Your task to perform on an android device: Search for the best rated book on Goodreads. Image 0: 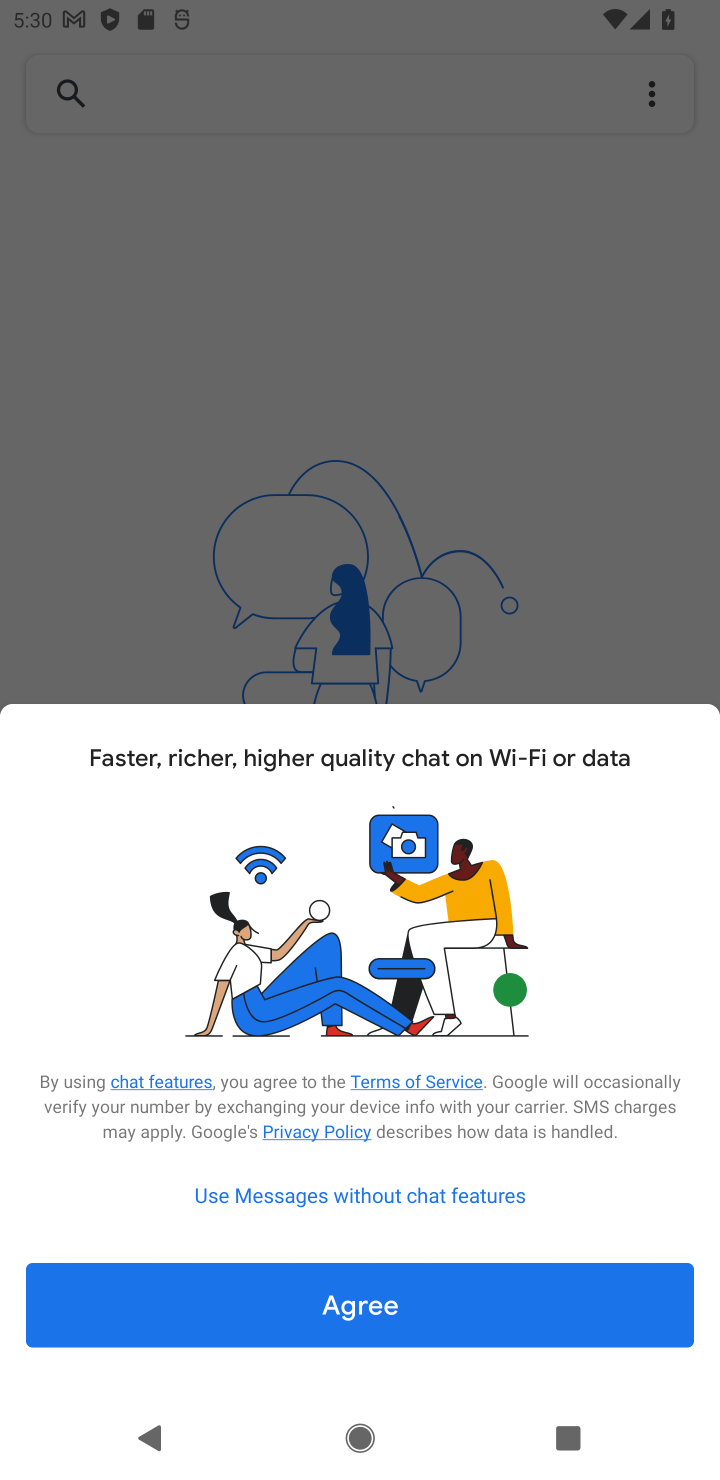
Step 0: press home button
Your task to perform on an android device: Search for the best rated book on Goodreads. Image 1: 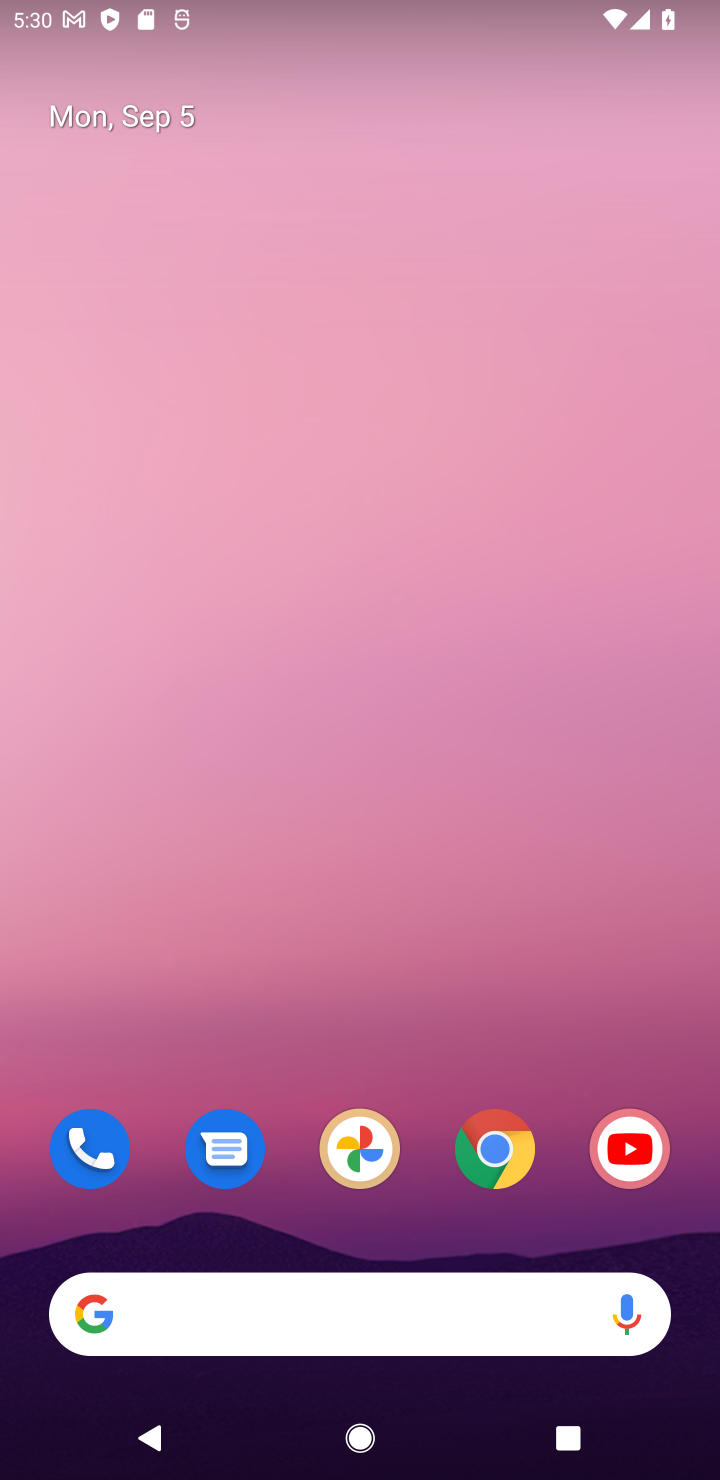
Step 1: click (496, 1150)
Your task to perform on an android device: Search for the best rated book on Goodreads. Image 2: 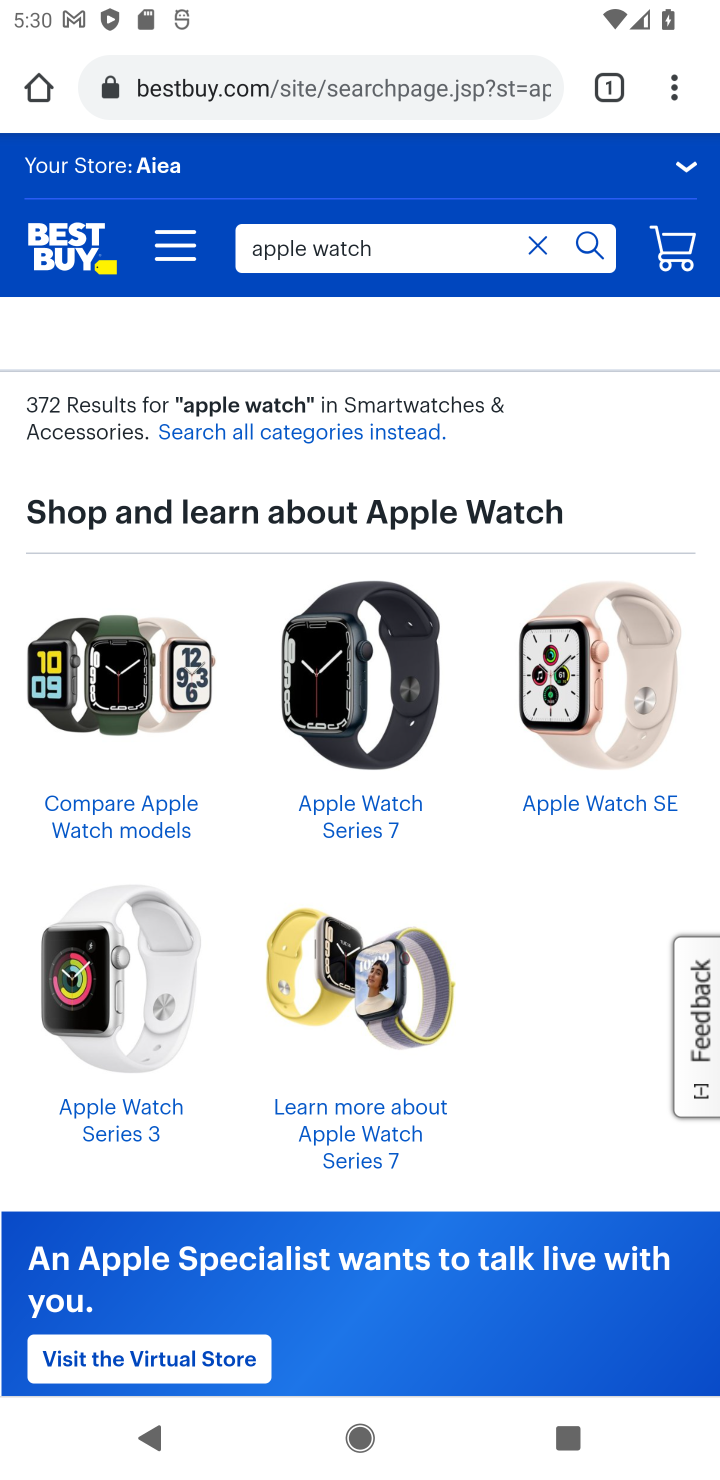
Step 2: click (262, 59)
Your task to perform on an android device: Search for the best rated book on Goodreads. Image 3: 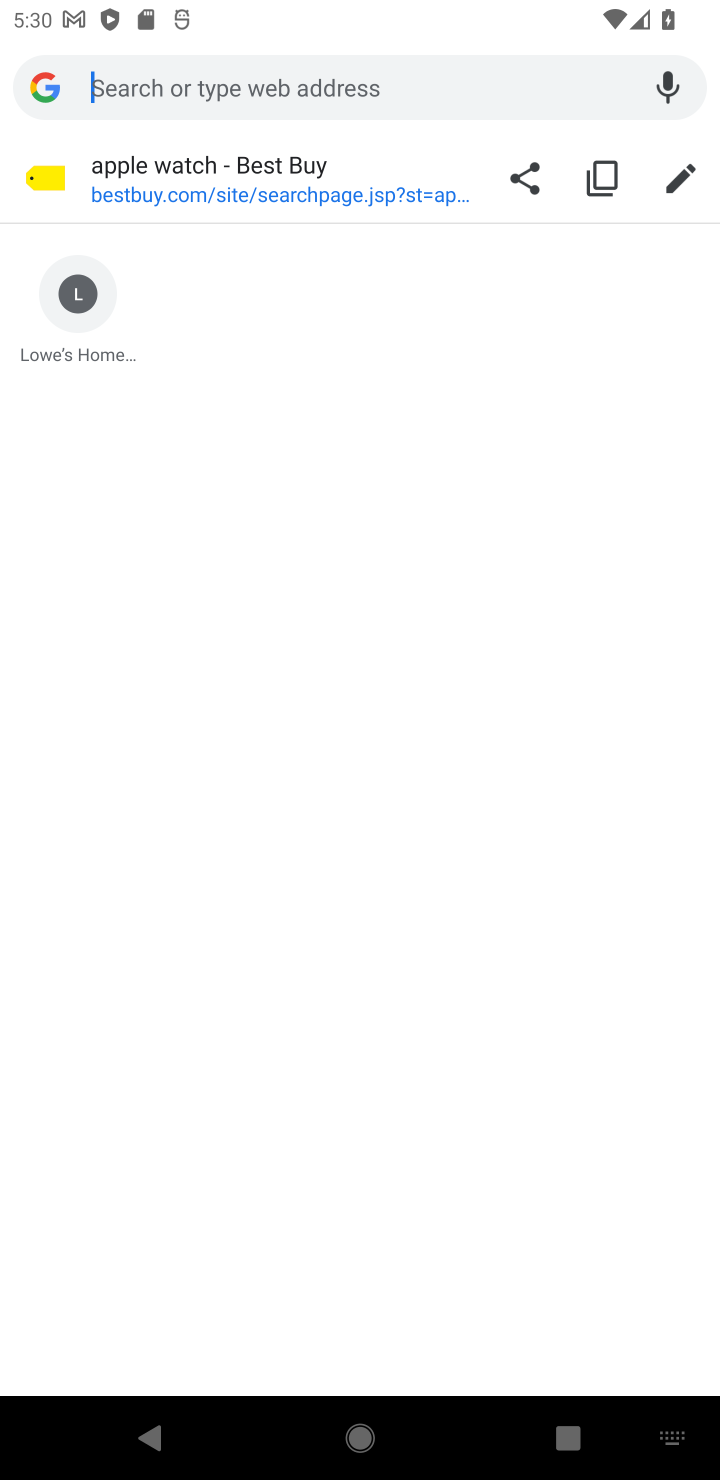
Step 3: type "Goodreads"
Your task to perform on an android device: Search for the best rated book on Goodreads. Image 4: 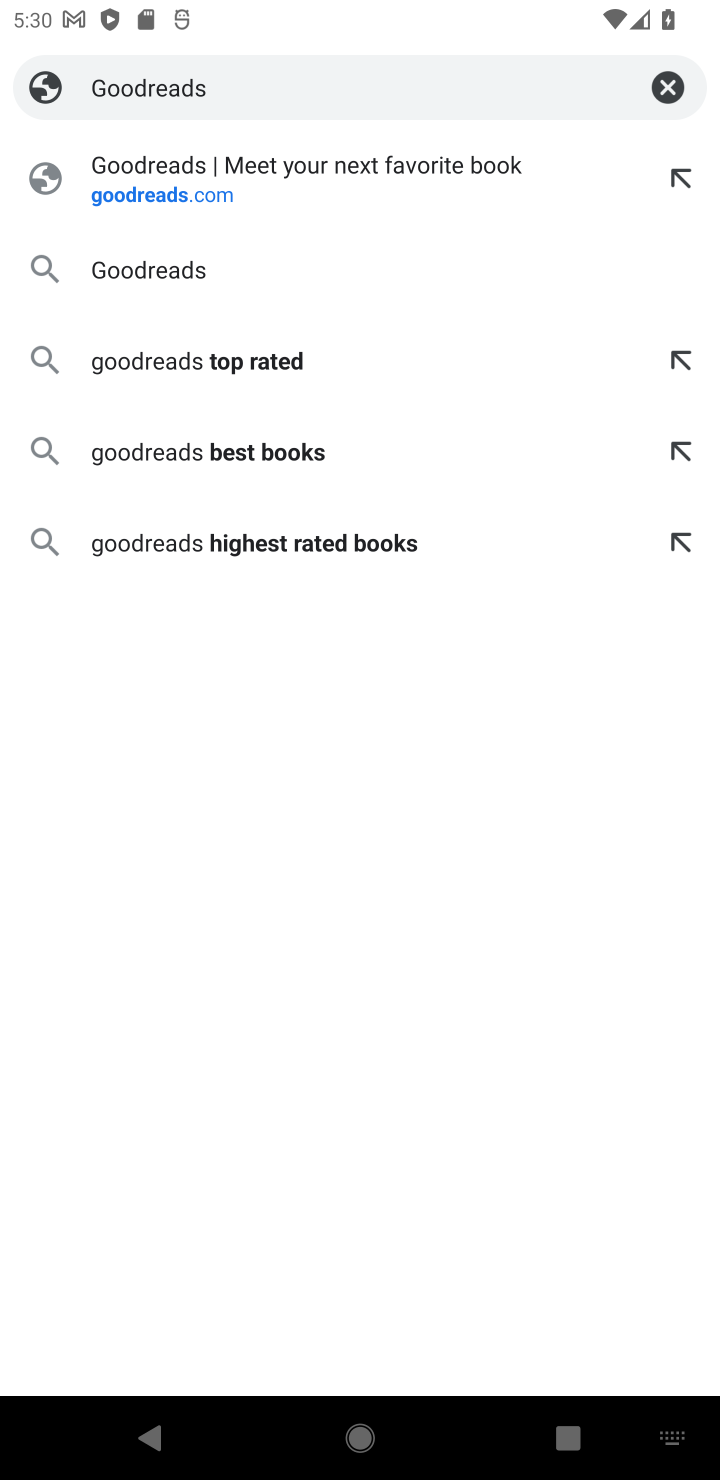
Step 4: click (201, 174)
Your task to perform on an android device: Search for the best rated book on Goodreads. Image 5: 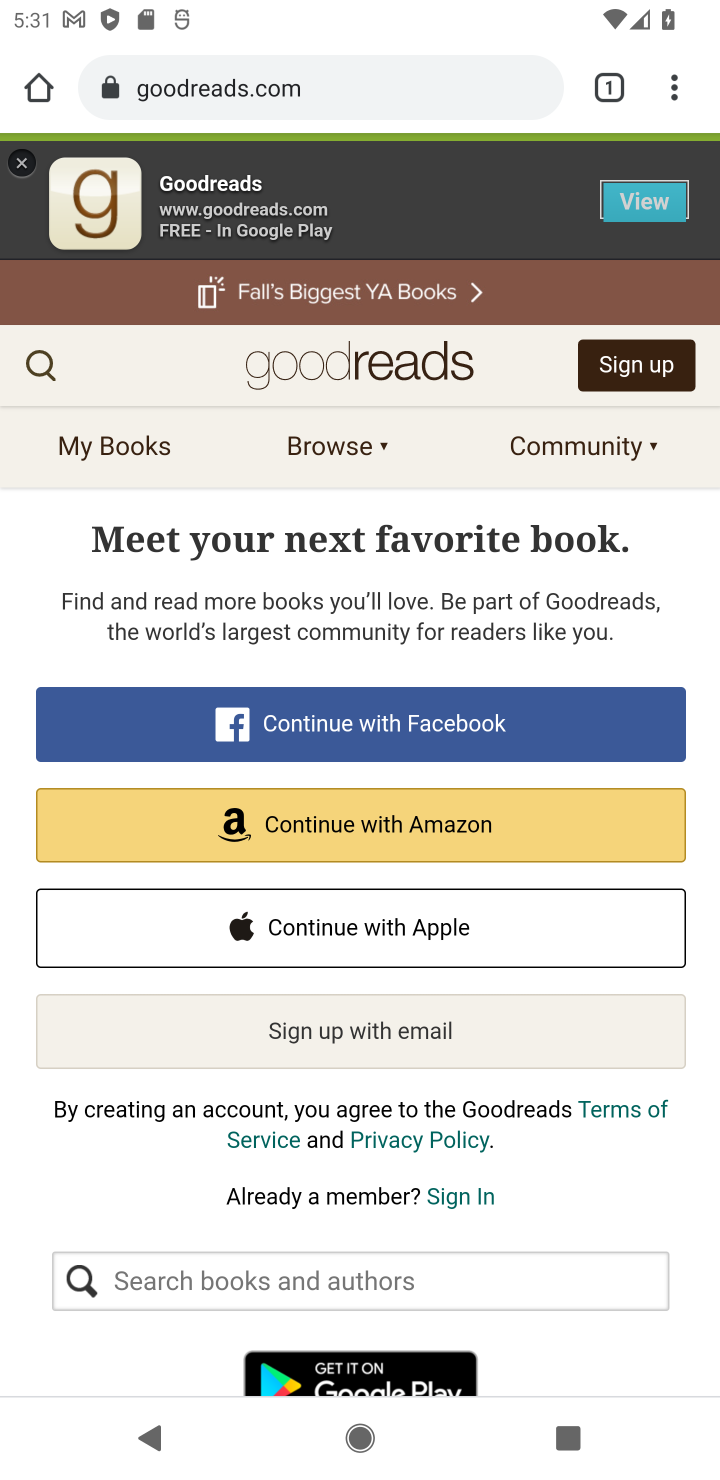
Step 5: drag from (163, 1277) to (238, 549)
Your task to perform on an android device: Search for the best rated book on Goodreads. Image 6: 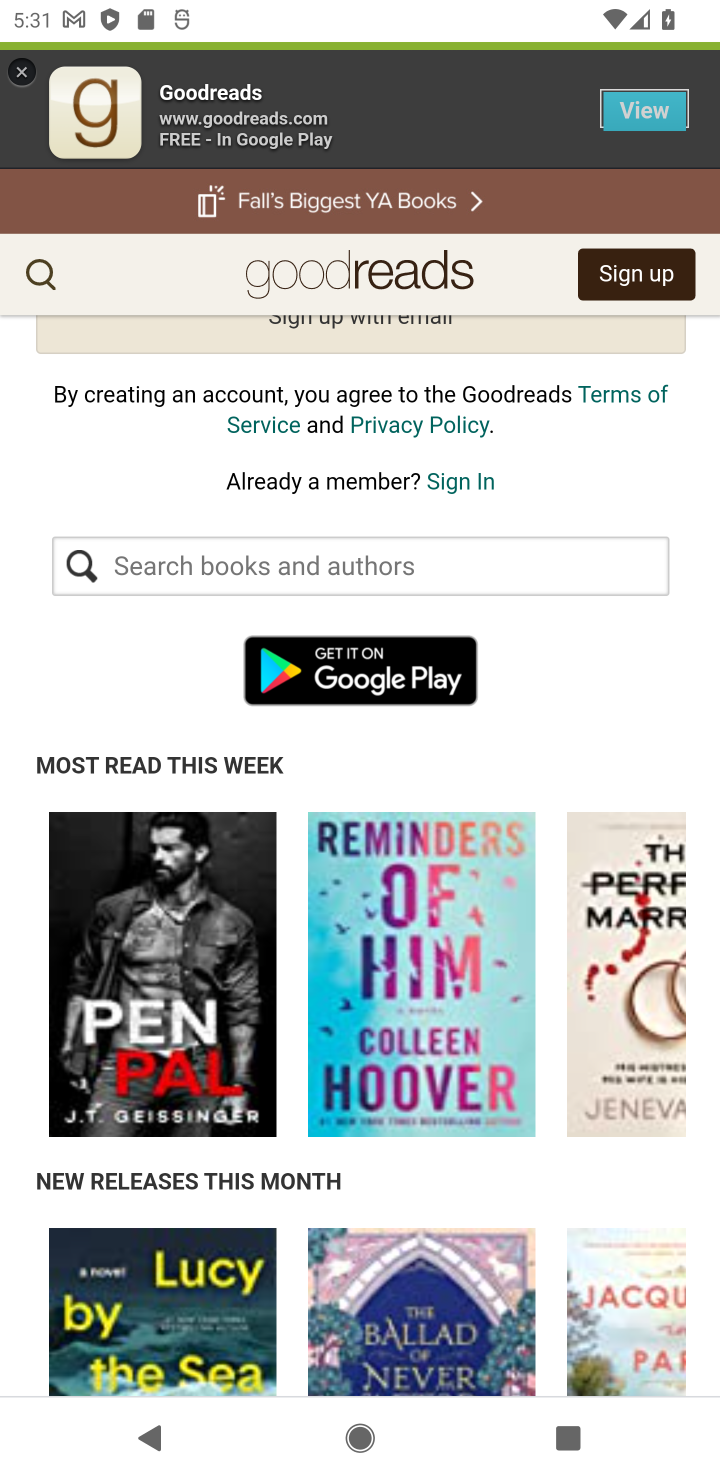
Step 6: click (139, 561)
Your task to perform on an android device: Search for the best rated book on Goodreads. Image 7: 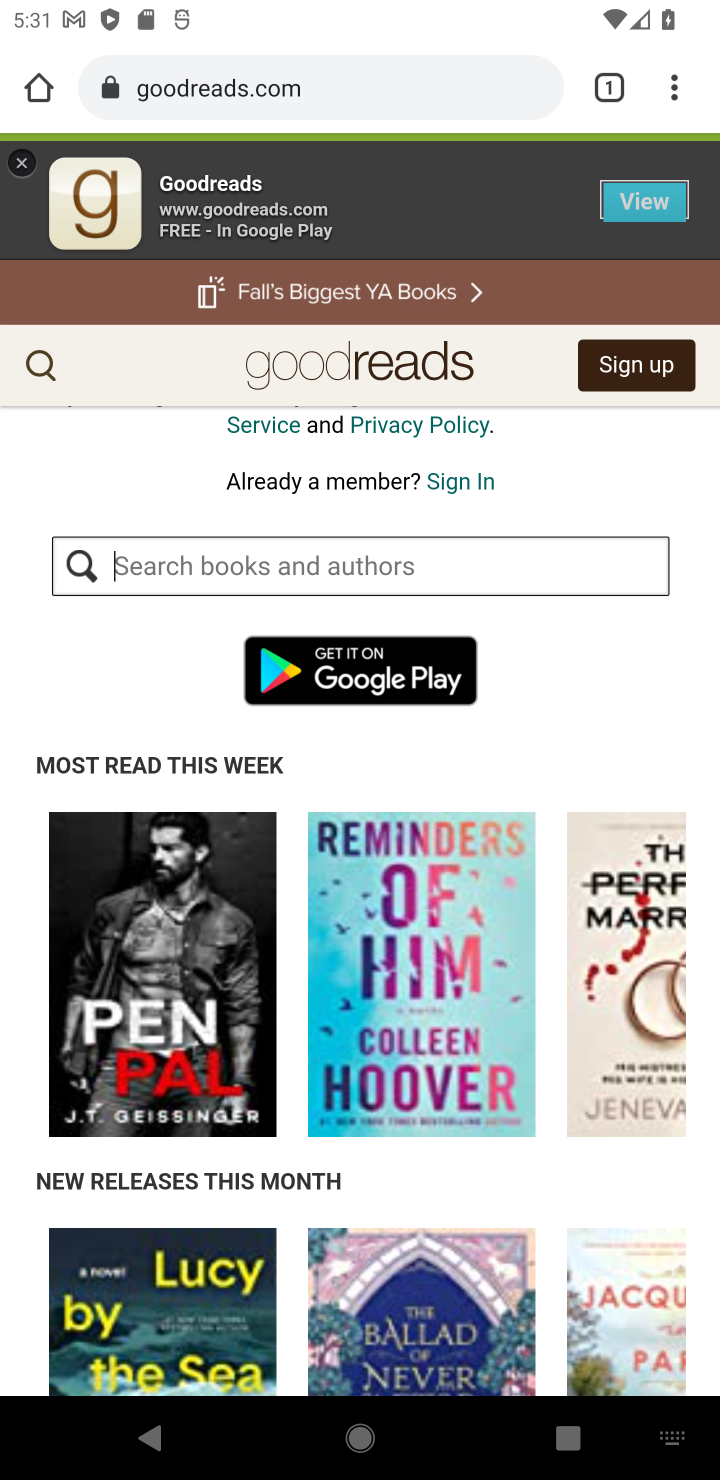
Step 7: drag from (90, 721) to (144, 397)
Your task to perform on an android device: Search for the best rated book on Goodreads. Image 8: 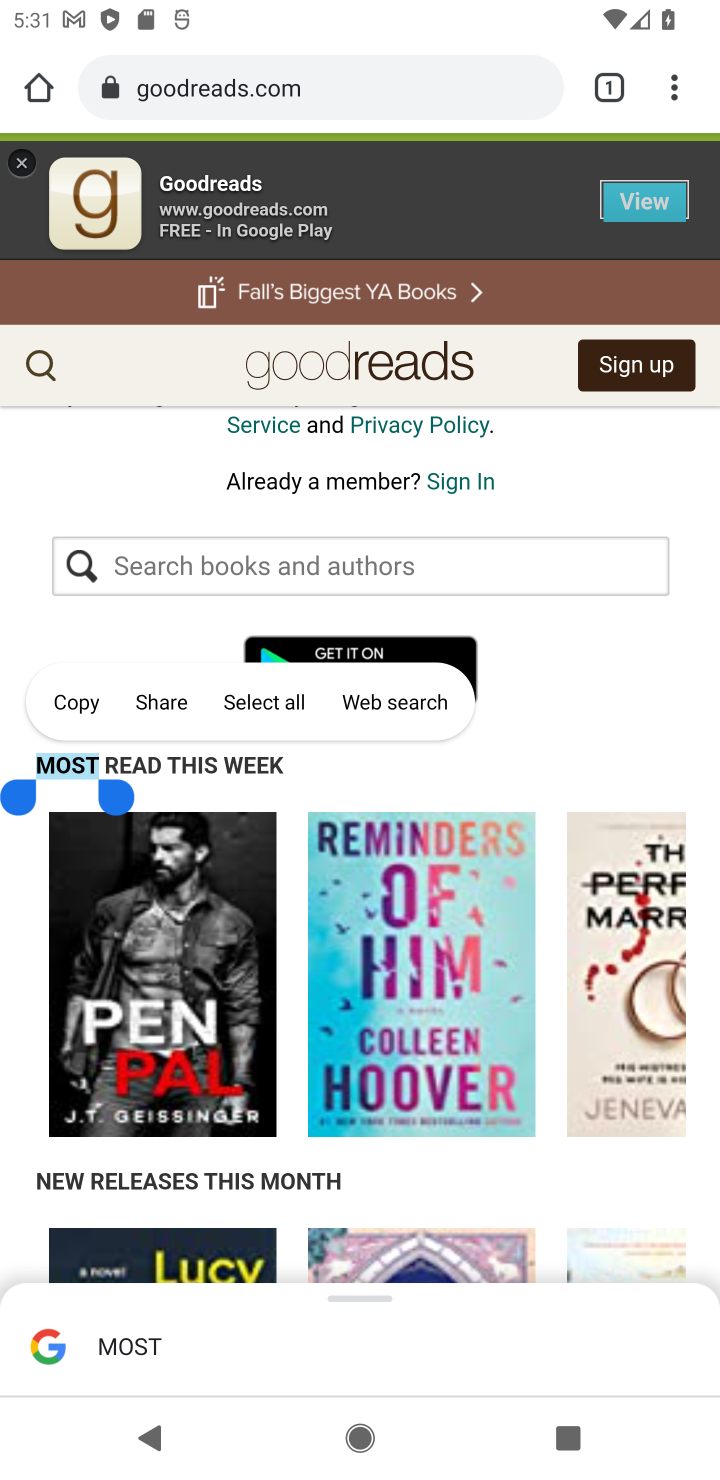
Step 8: drag from (370, 1041) to (380, 1174)
Your task to perform on an android device: Search for the best rated book on Goodreads. Image 9: 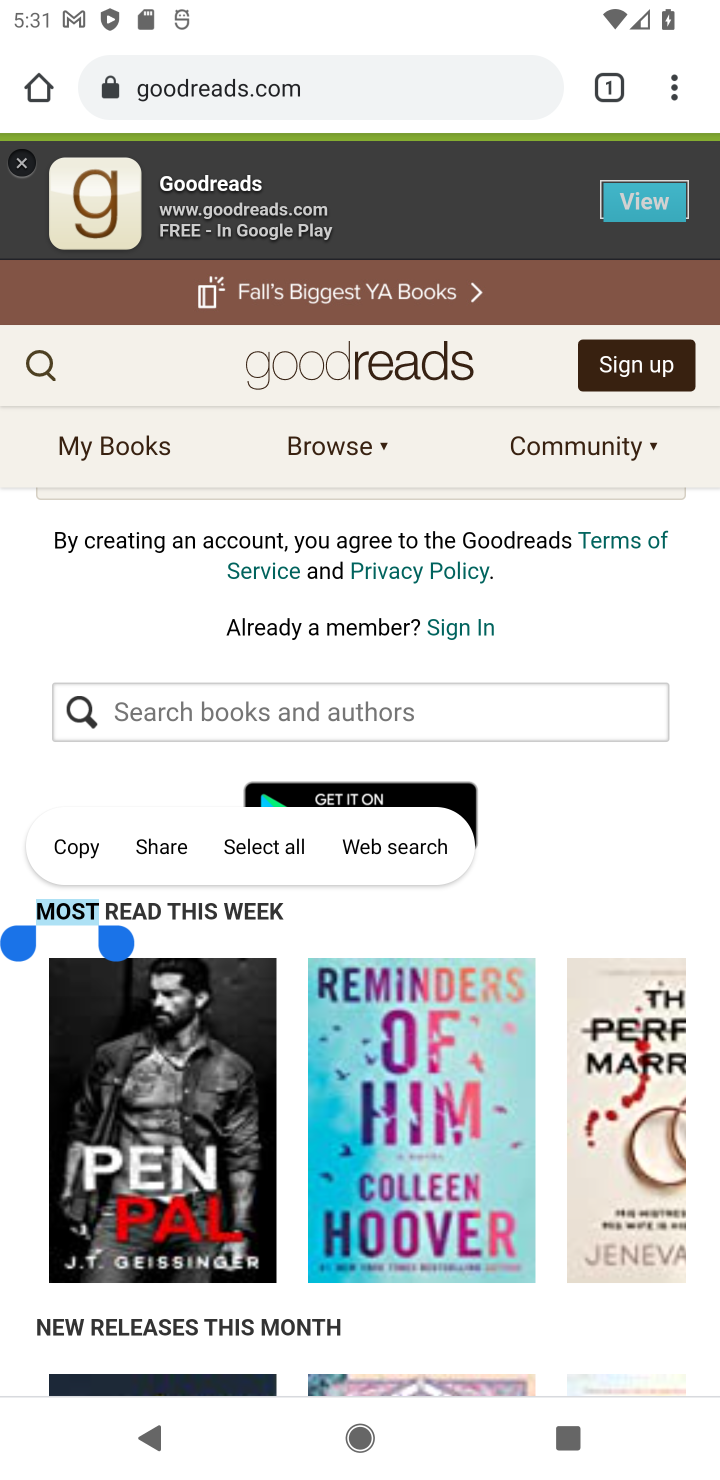
Step 9: click (204, 709)
Your task to perform on an android device: Search for the best rated book on Goodreads. Image 10: 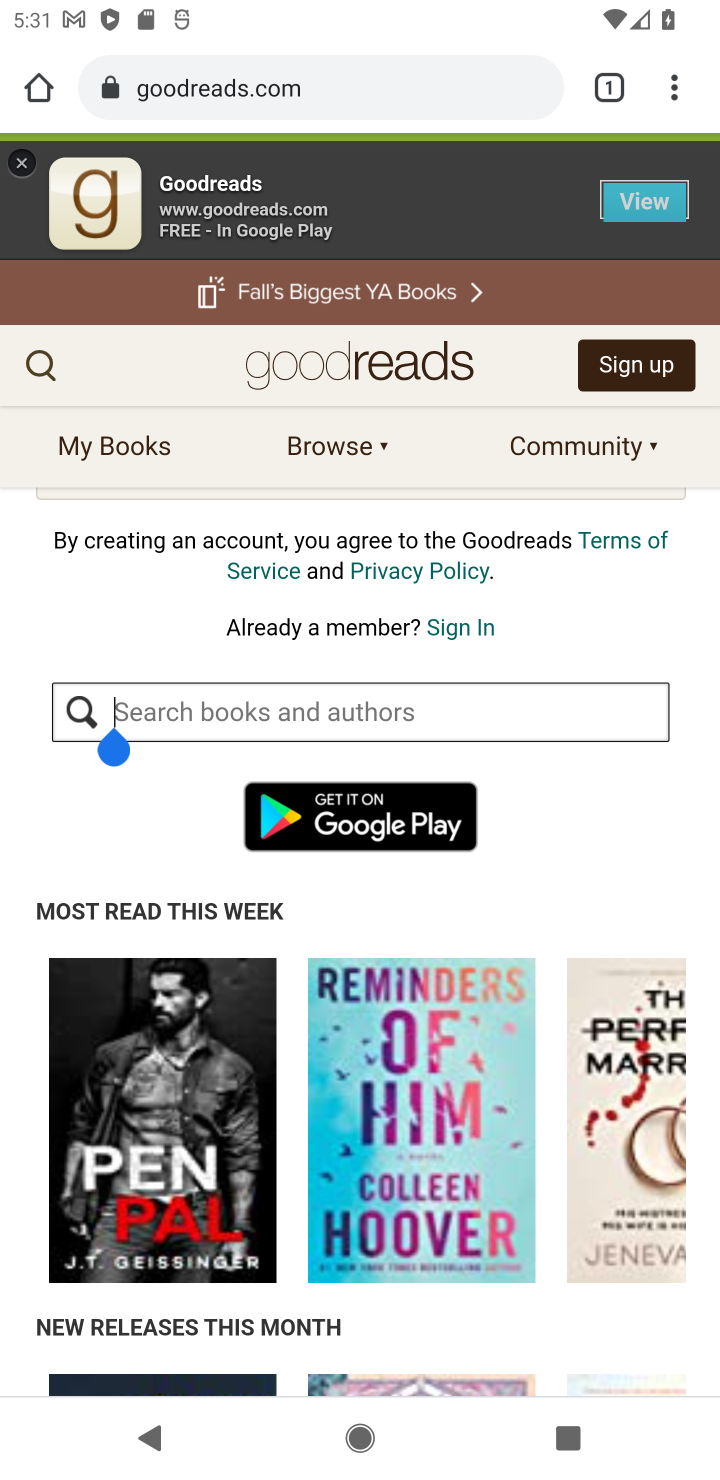
Step 10: type "best rated book"
Your task to perform on an android device: Search for the best rated book on Goodreads. Image 11: 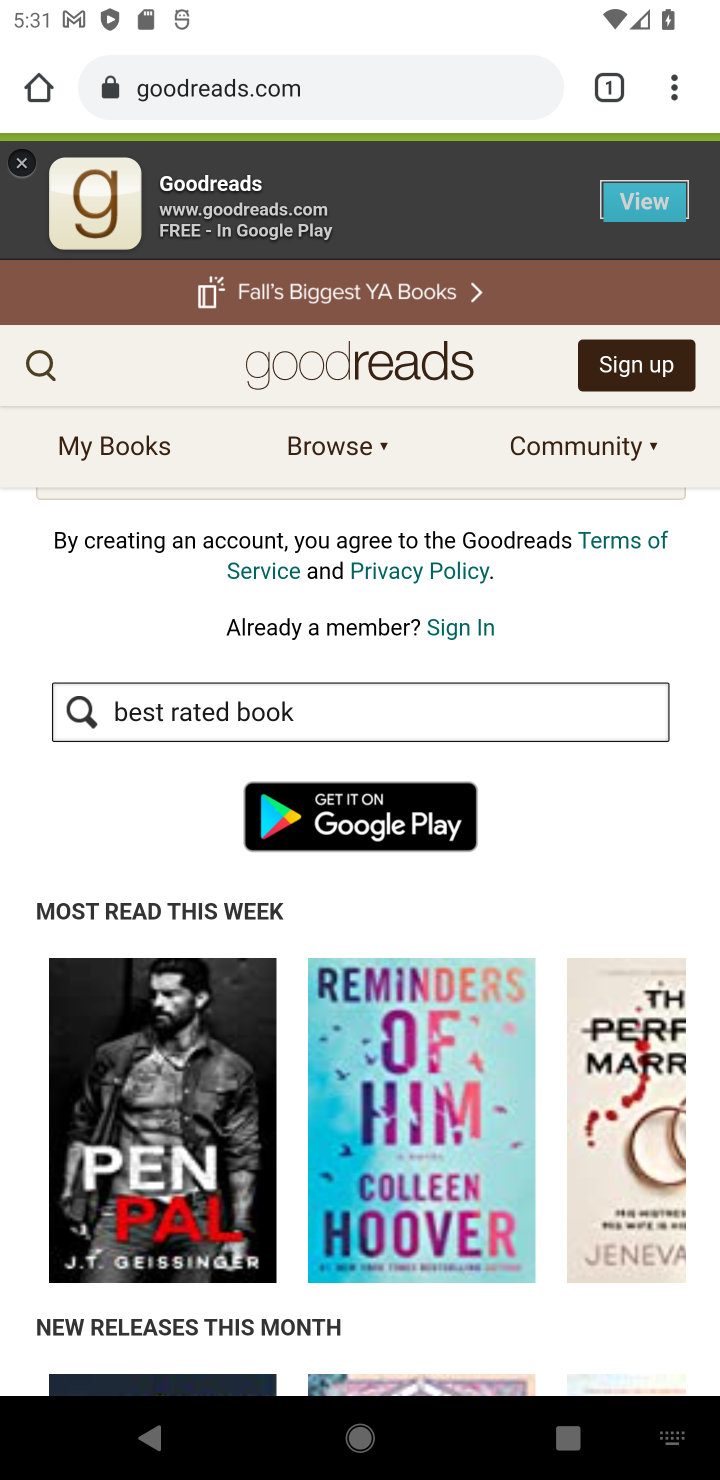
Step 11: click (80, 719)
Your task to perform on an android device: Search for the best rated book on Goodreads. Image 12: 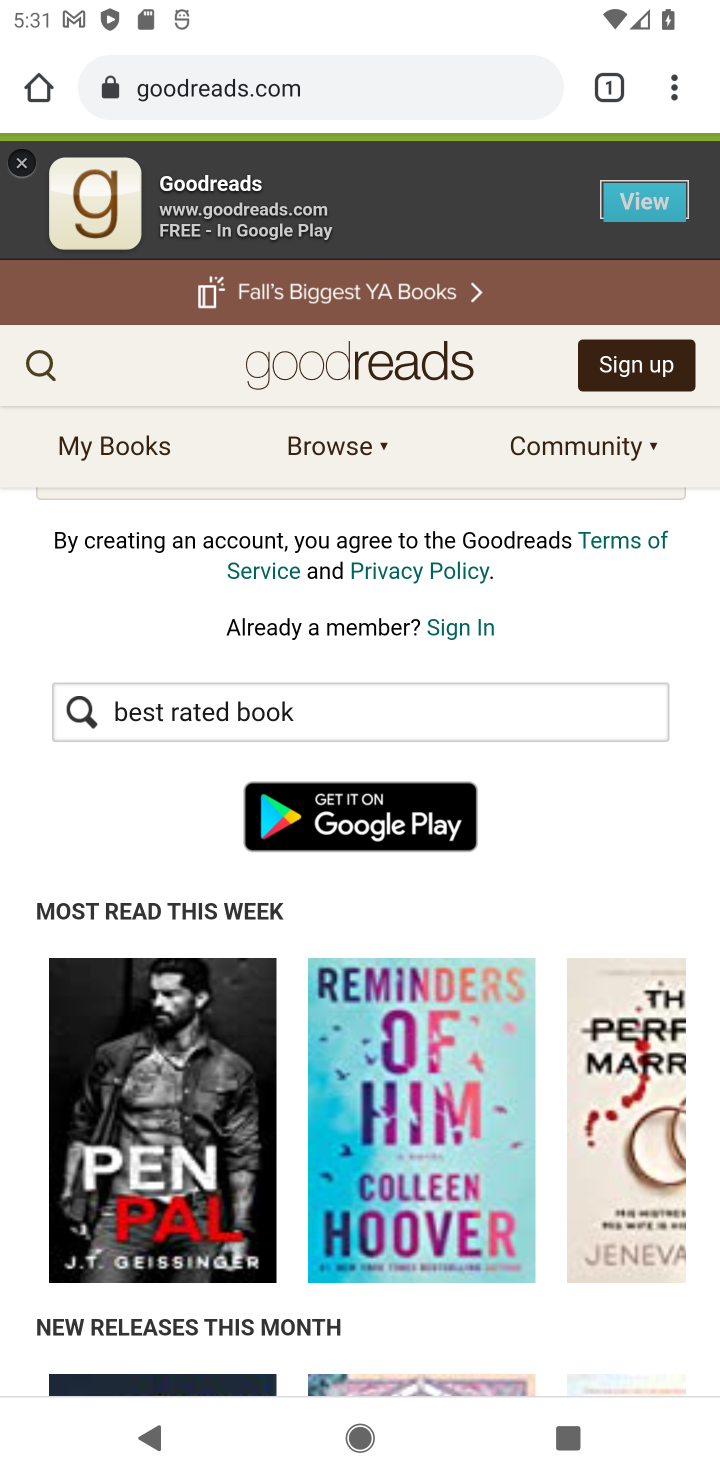
Step 12: task complete